Your task to perform on an android device: Go to Maps Image 0: 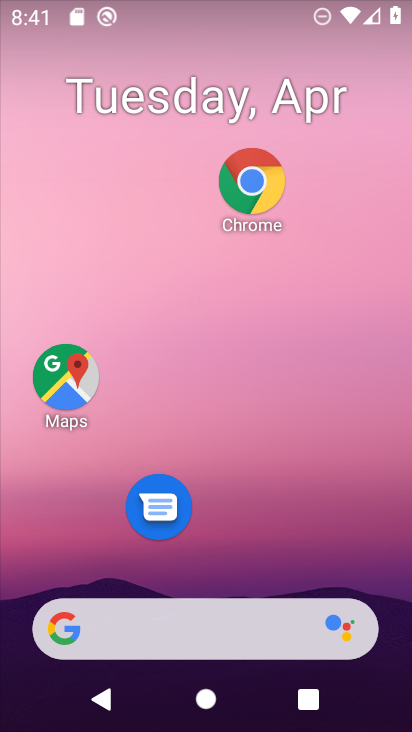
Step 0: click (66, 373)
Your task to perform on an android device: Go to Maps Image 1: 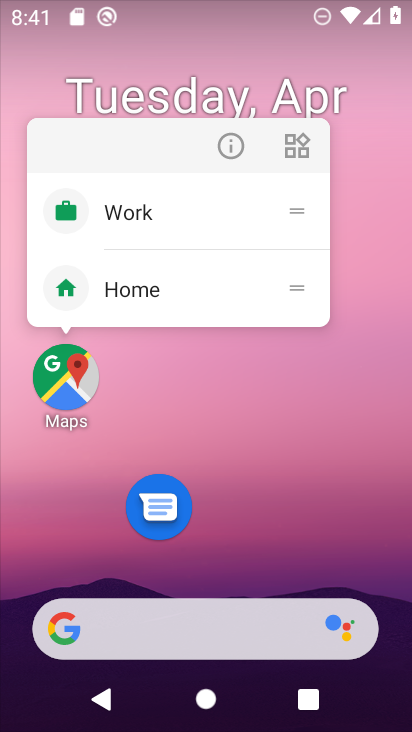
Step 1: click (73, 355)
Your task to perform on an android device: Go to Maps Image 2: 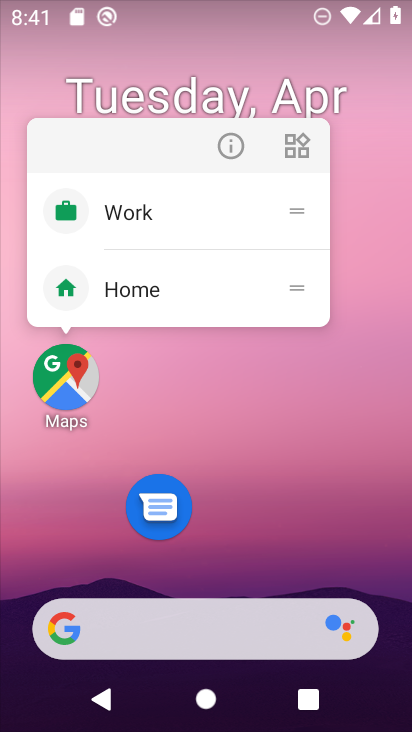
Step 2: click (86, 380)
Your task to perform on an android device: Go to Maps Image 3: 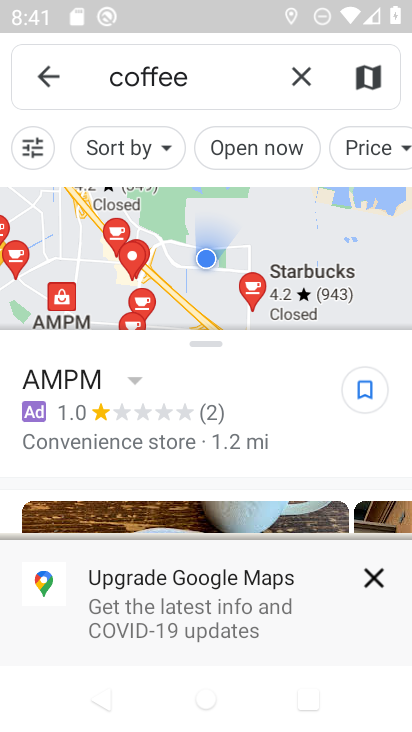
Step 3: click (48, 83)
Your task to perform on an android device: Go to Maps Image 4: 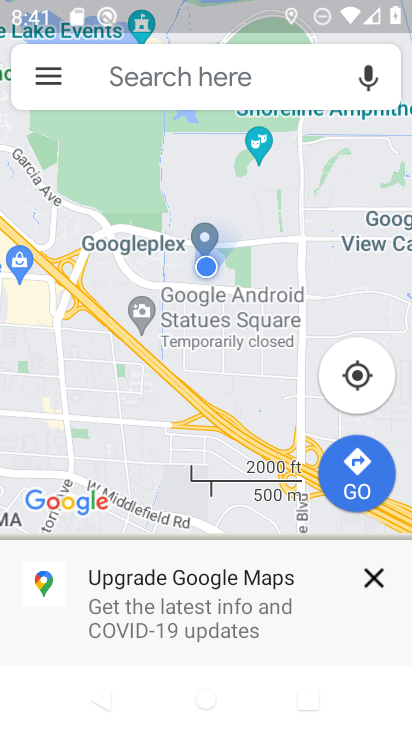
Step 4: task complete